Your task to perform on an android device: Open Amazon Image 0: 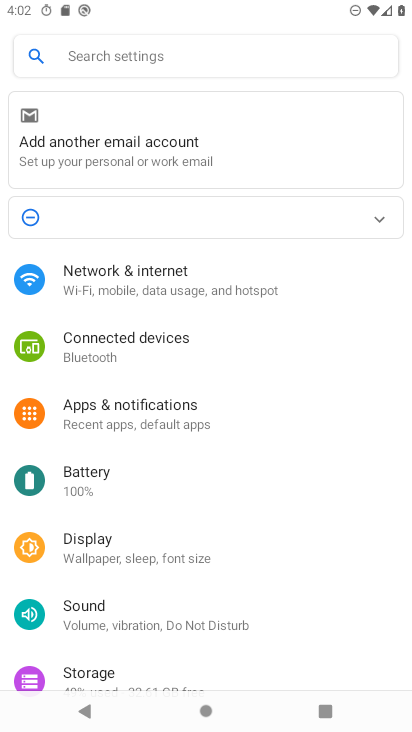
Step 0: press home button
Your task to perform on an android device: Open Amazon Image 1: 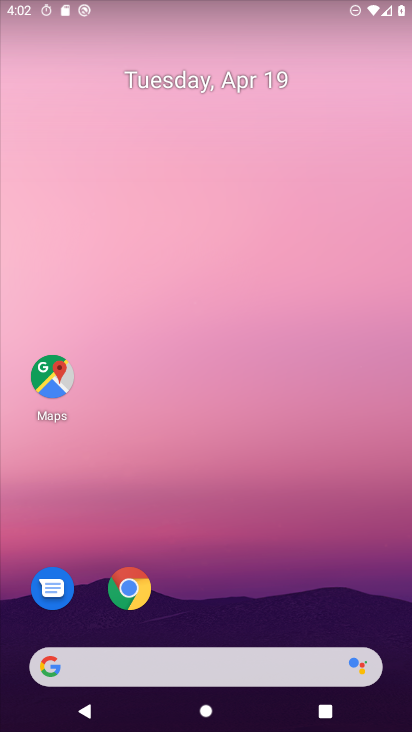
Step 1: click (139, 596)
Your task to perform on an android device: Open Amazon Image 2: 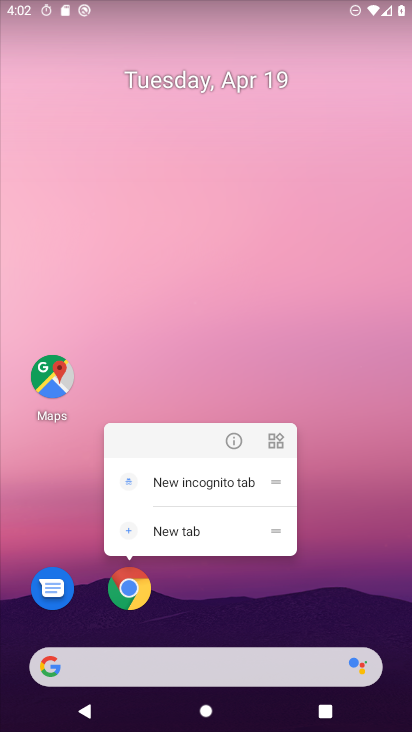
Step 2: click (131, 592)
Your task to perform on an android device: Open Amazon Image 3: 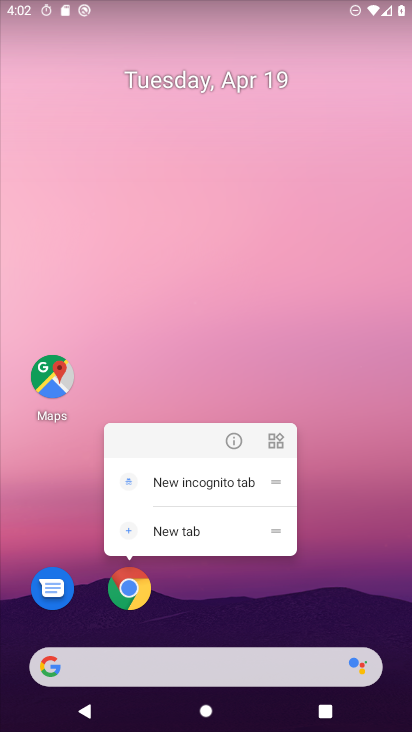
Step 3: click (130, 583)
Your task to perform on an android device: Open Amazon Image 4: 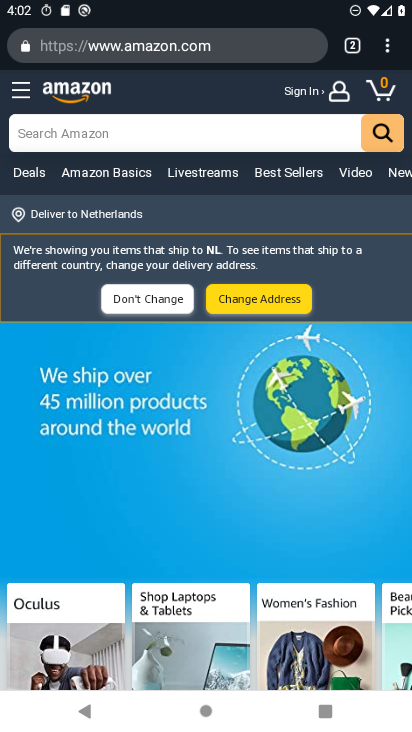
Step 4: task complete